Your task to perform on an android device: toggle location history Image 0: 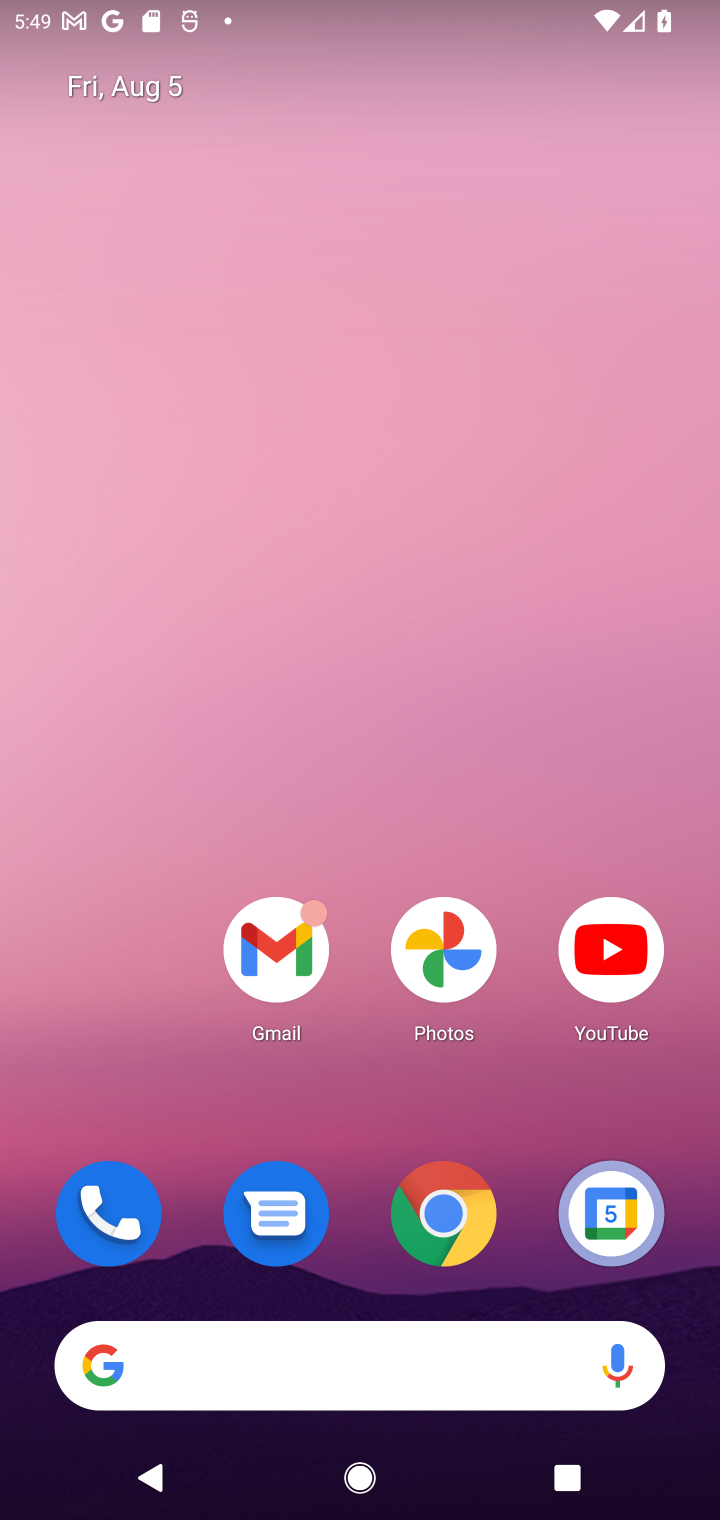
Step 0: drag from (357, 1308) to (309, 99)
Your task to perform on an android device: toggle location history Image 1: 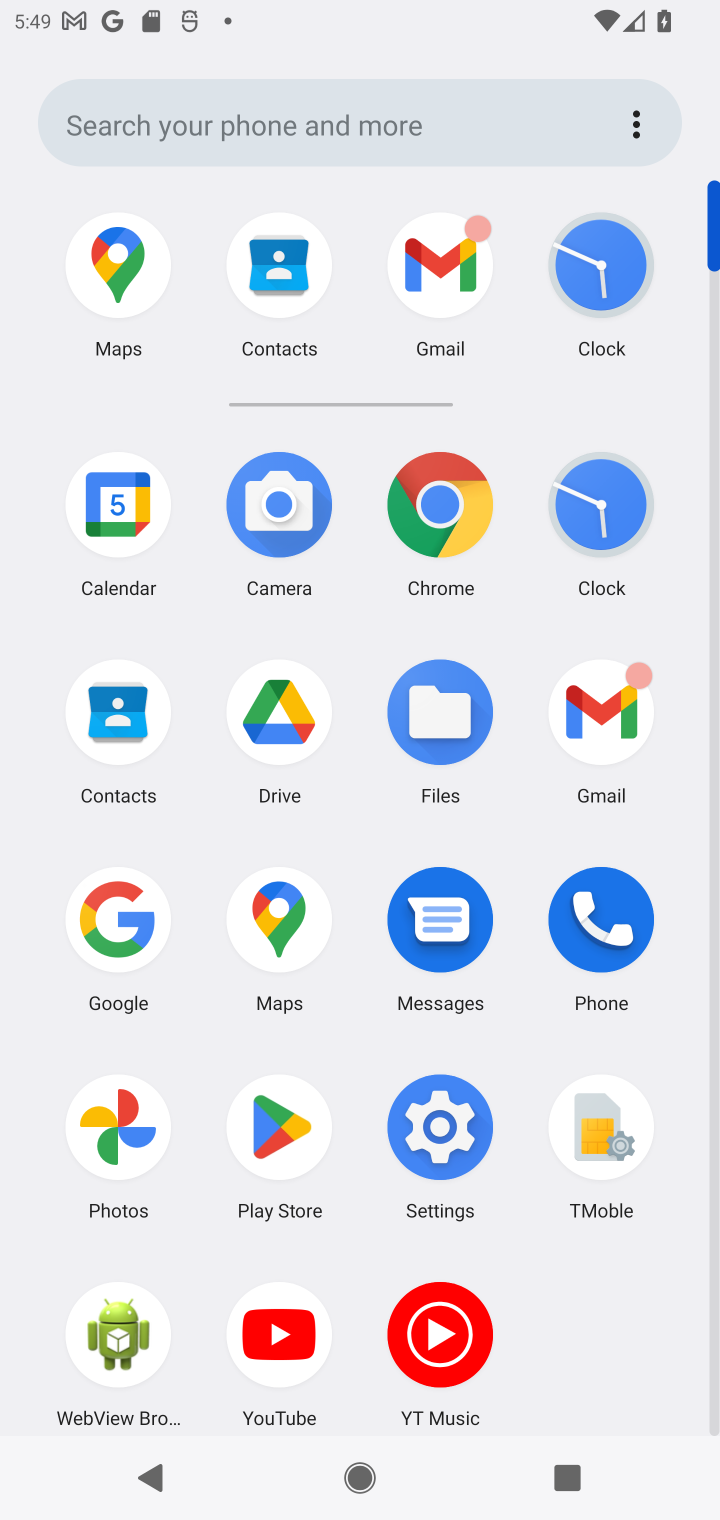
Step 1: click (444, 1091)
Your task to perform on an android device: toggle location history Image 2: 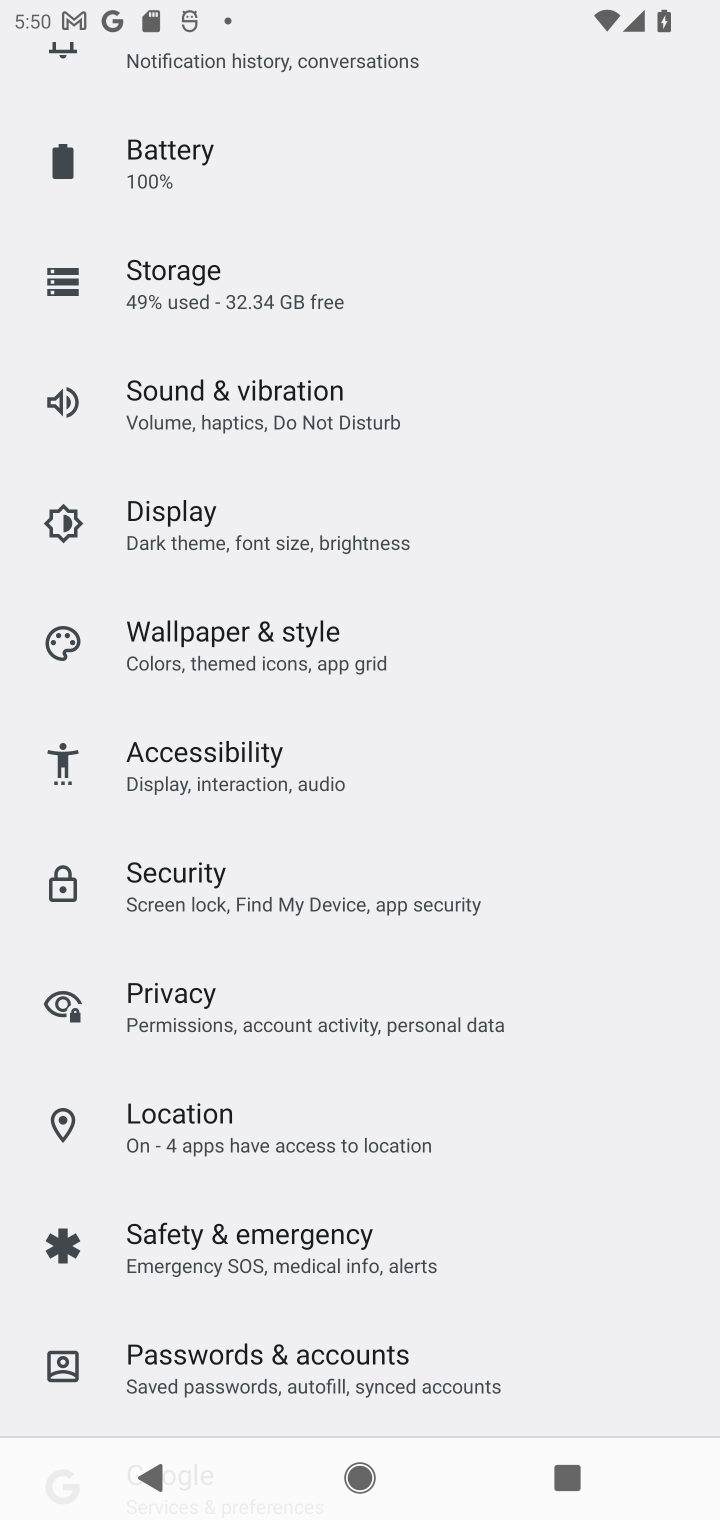
Step 2: click (199, 1176)
Your task to perform on an android device: toggle location history Image 3: 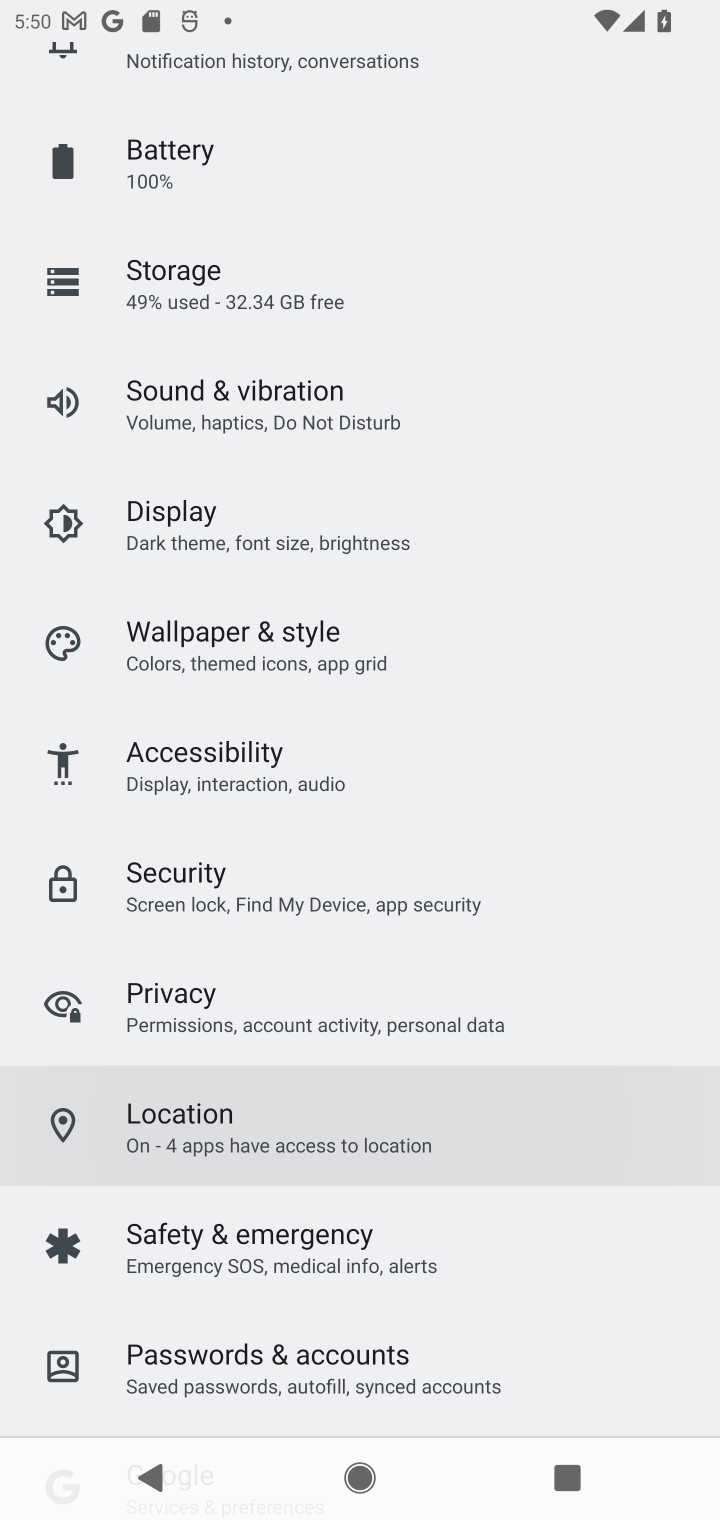
Step 3: task complete